Your task to perform on an android device: open app "Yahoo Mail" (install if not already installed) Image 0: 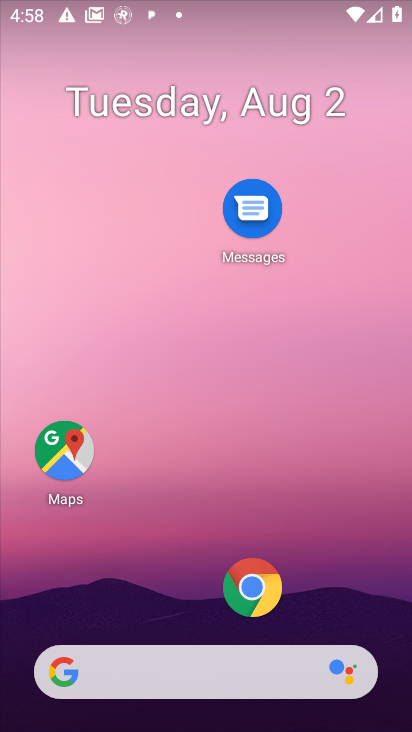
Step 0: drag from (176, 594) to (176, 117)
Your task to perform on an android device: open app "Yahoo Mail" (install if not already installed) Image 1: 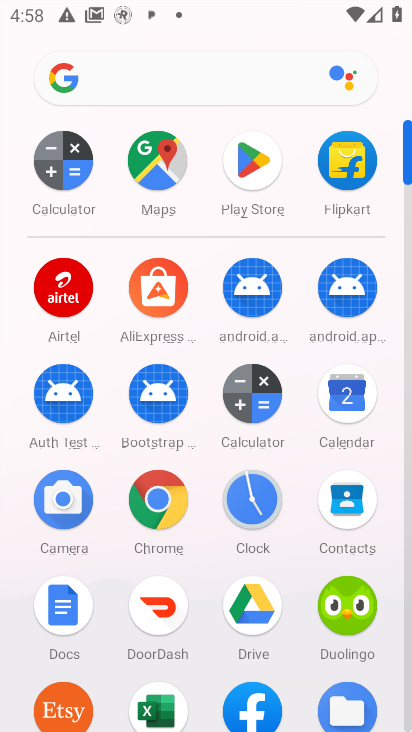
Step 1: click (240, 155)
Your task to perform on an android device: open app "Yahoo Mail" (install if not already installed) Image 2: 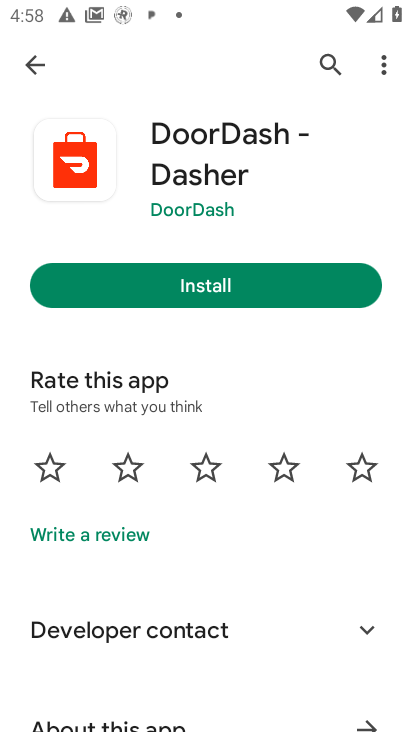
Step 2: click (340, 55)
Your task to perform on an android device: open app "Yahoo Mail" (install if not already installed) Image 3: 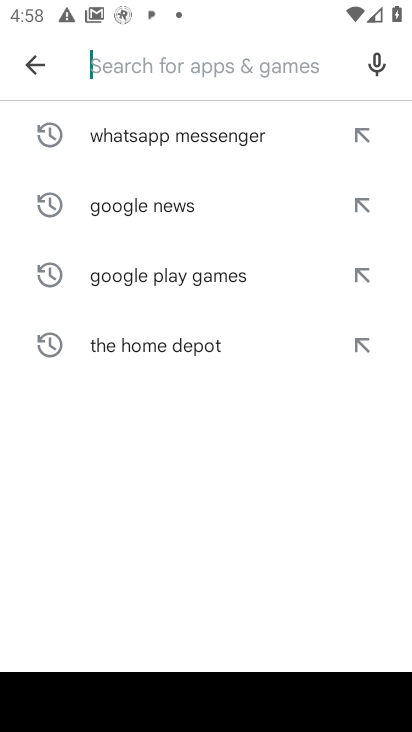
Step 3: type "Yahoo Mail"
Your task to perform on an android device: open app "Yahoo Mail" (install if not already installed) Image 4: 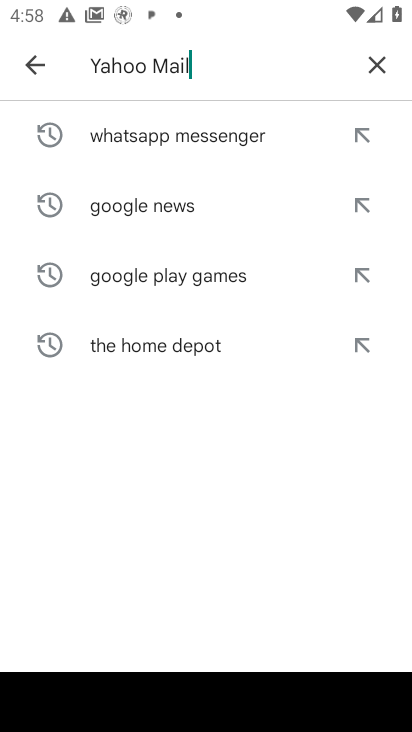
Step 4: type ""
Your task to perform on an android device: open app "Yahoo Mail" (install if not already installed) Image 5: 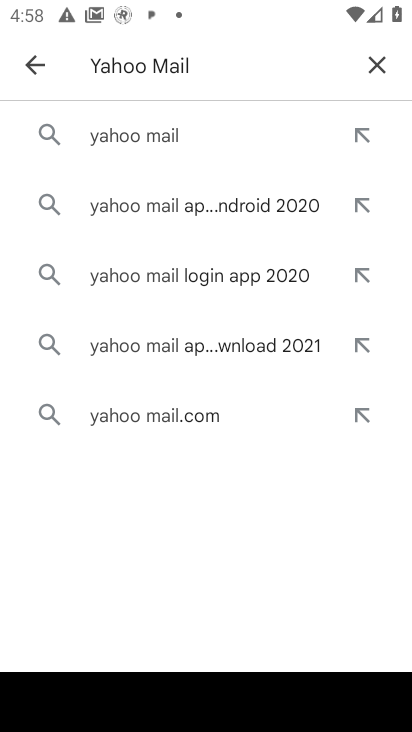
Step 5: click (217, 121)
Your task to perform on an android device: open app "Yahoo Mail" (install if not already installed) Image 6: 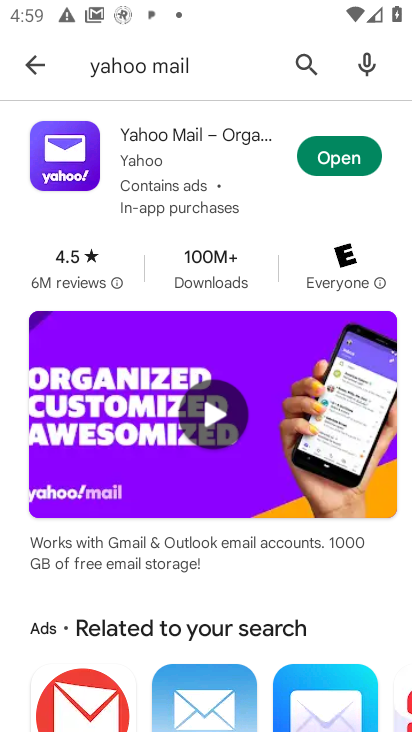
Step 6: click (339, 161)
Your task to perform on an android device: open app "Yahoo Mail" (install if not already installed) Image 7: 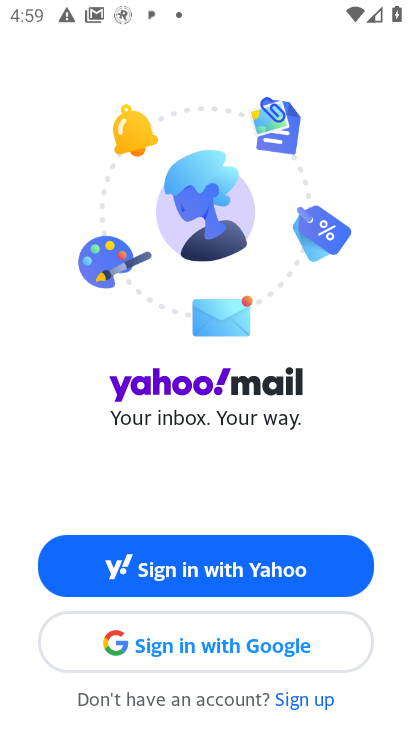
Step 7: task complete